Your task to perform on an android device: Search for the best rated headphones on Amazon. Image 0: 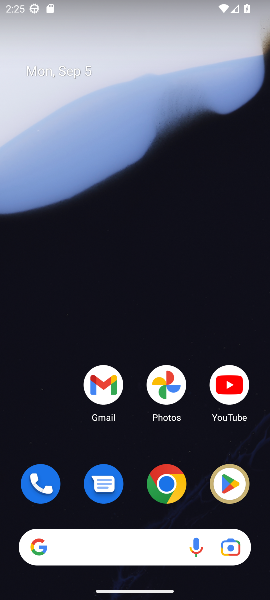
Step 0: click (170, 495)
Your task to perform on an android device: Search for the best rated headphones on Amazon. Image 1: 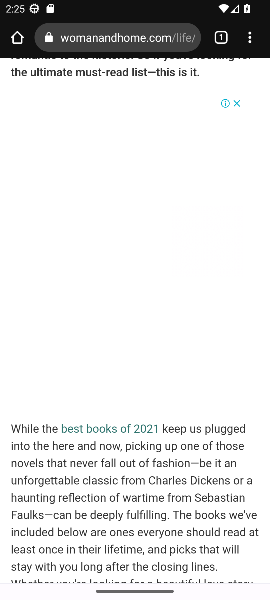
Step 1: click (154, 42)
Your task to perform on an android device: Search for the best rated headphones on Amazon. Image 2: 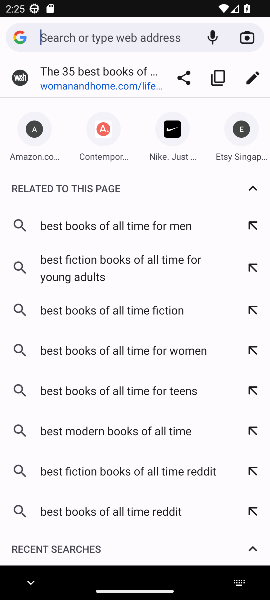
Step 2: type "Amazon"
Your task to perform on an android device: Search for the best rated headphones on Amazon. Image 3: 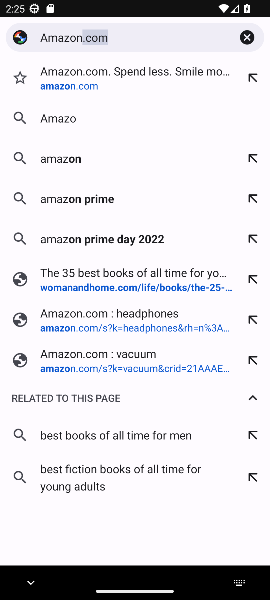
Step 3: press enter
Your task to perform on an android device: Search for the best rated headphones on Amazon. Image 4: 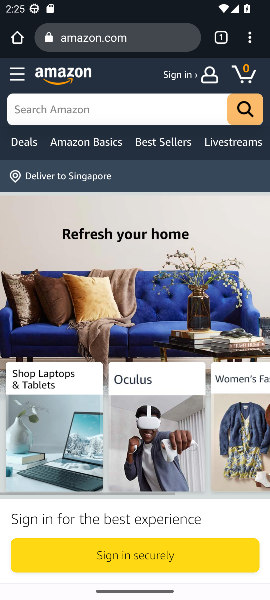
Step 4: click (106, 106)
Your task to perform on an android device: Search for the best rated headphones on Amazon. Image 5: 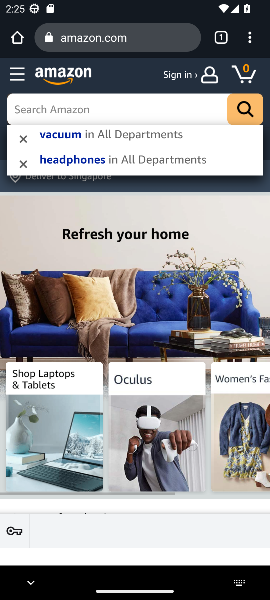
Step 5: type "headphones"
Your task to perform on an android device: Search for the best rated headphones on Amazon. Image 6: 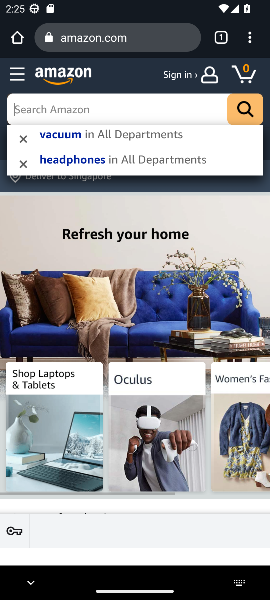
Step 6: press enter
Your task to perform on an android device: Search for the best rated headphones on Amazon. Image 7: 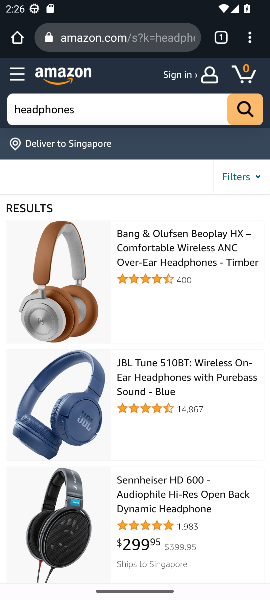
Step 7: task complete